Your task to perform on an android device: turn vacation reply on in the gmail app Image 0: 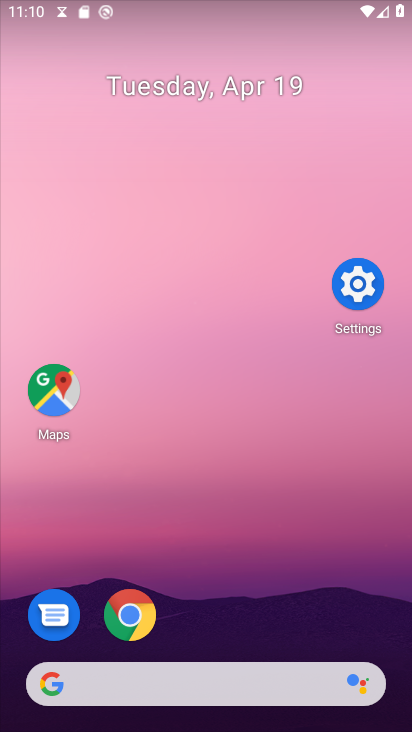
Step 0: drag from (171, 610) to (360, 10)
Your task to perform on an android device: turn vacation reply on in the gmail app Image 1: 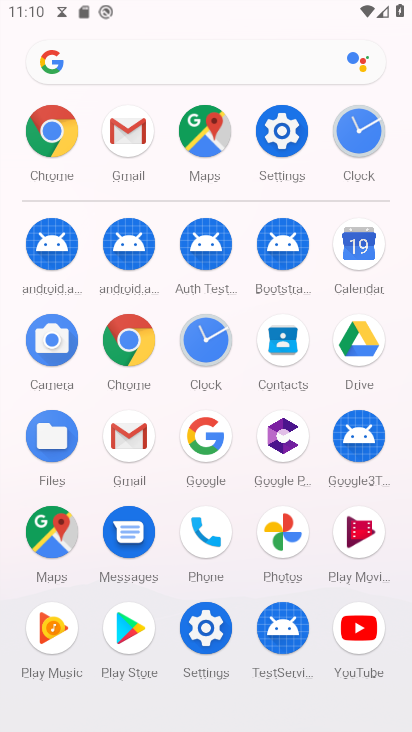
Step 1: click (126, 434)
Your task to perform on an android device: turn vacation reply on in the gmail app Image 2: 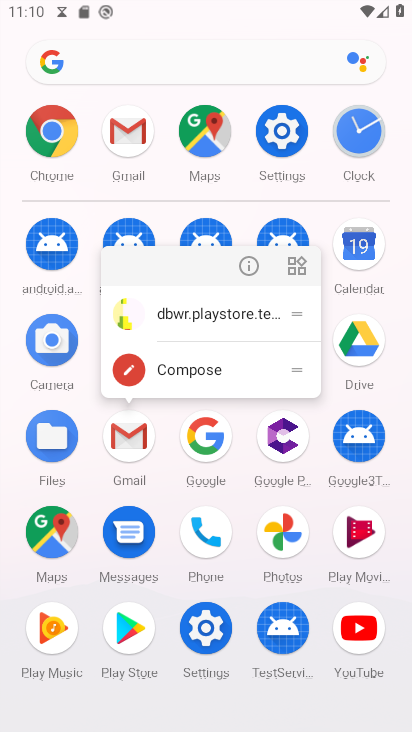
Step 2: click (243, 274)
Your task to perform on an android device: turn vacation reply on in the gmail app Image 3: 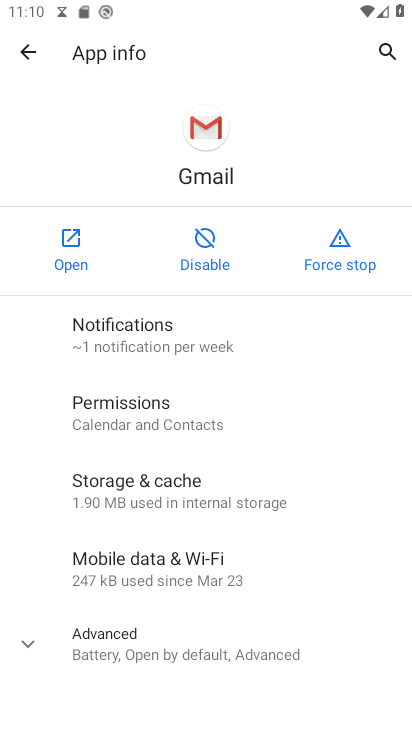
Step 3: click (70, 247)
Your task to perform on an android device: turn vacation reply on in the gmail app Image 4: 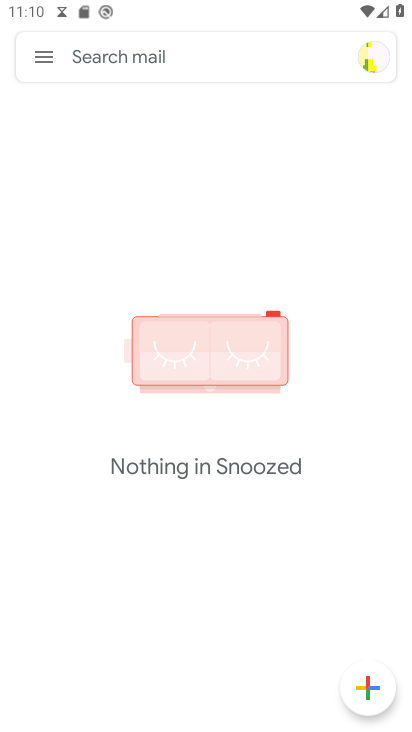
Step 4: drag from (250, 599) to (220, 314)
Your task to perform on an android device: turn vacation reply on in the gmail app Image 5: 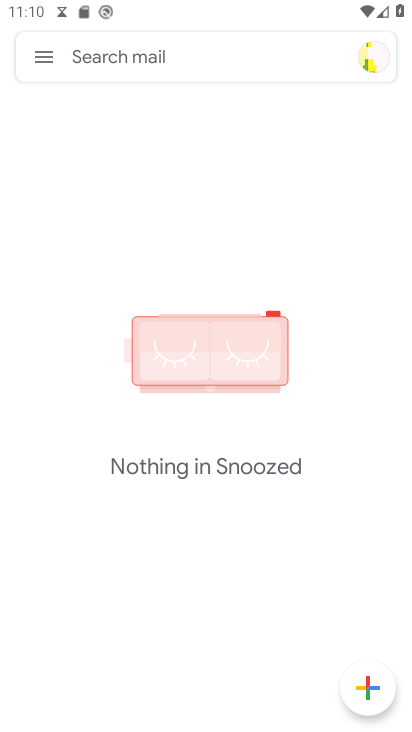
Step 5: drag from (281, 588) to (238, 345)
Your task to perform on an android device: turn vacation reply on in the gmail app Image 6: 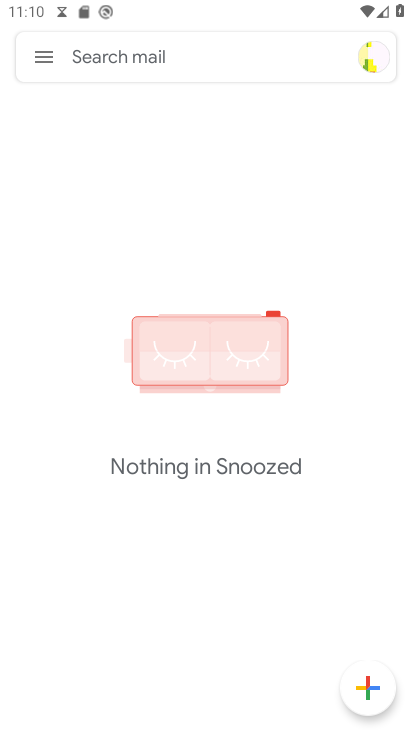
Step 6: click (44, 59)
Your task to perform on an android device: turn vacation reply on in the gmail app Image 7: 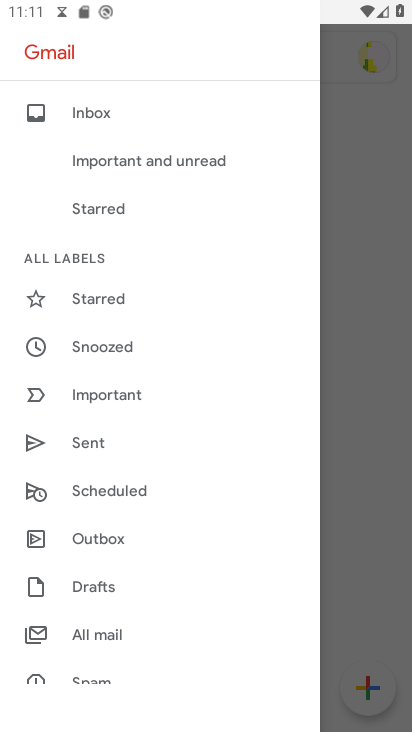
Step 7: drag from (126, 570) to (278, 30)
Your task to perform on an android device: turn vacation reply on in the gmail app Image 8: 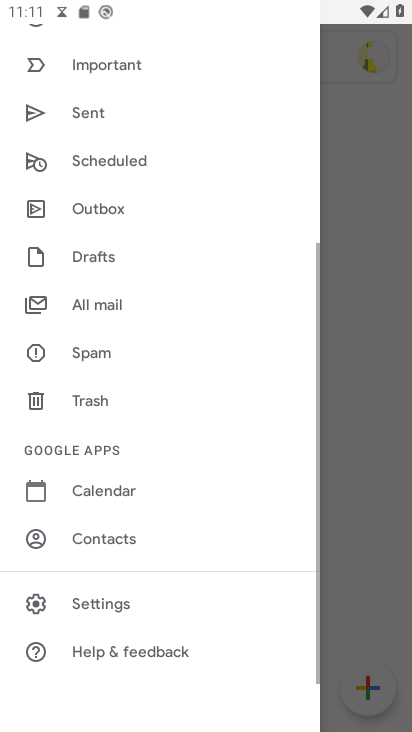
Step 8: click (113, 606)
Your task to perform on an android device: turn vacation reply on in the gmail app Image 9: 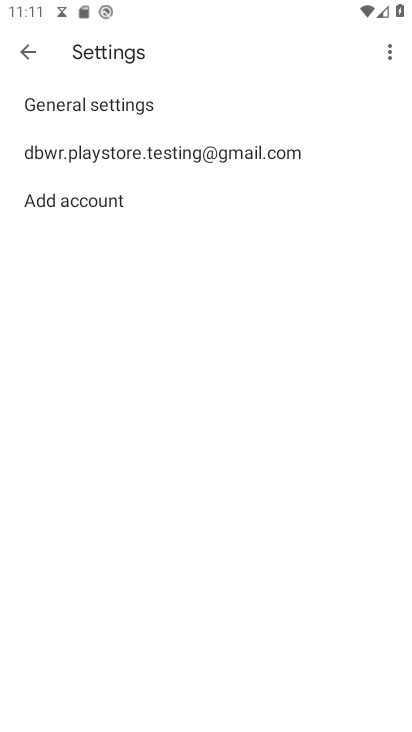
Step 9: click (149, 145)
Your task to perform on an android device: turn vacation reply on in the gmail app Image 10: 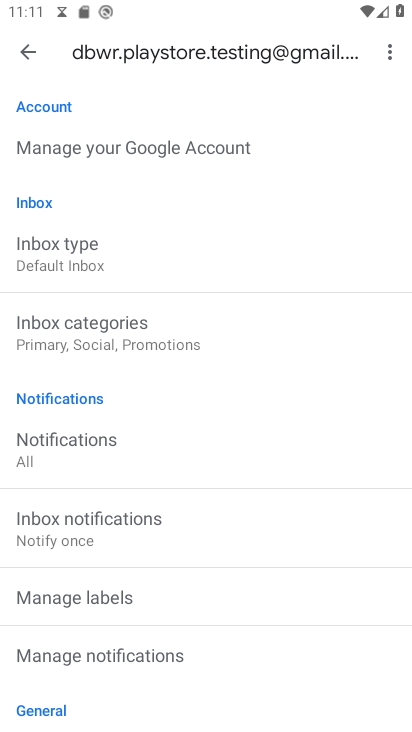
Step 10: drag from (177, 560) to (297, 191)
Your task to perform on an android device: turn vacation reply on in the gmail app Image 11: 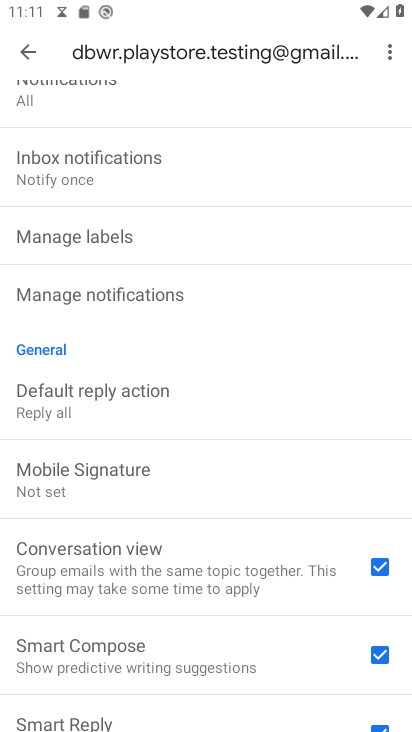
Step 11: drag from (195, 626) to (254, 136)
Your task to perform on an android device: turn vacation reply on in the gmail app Image 12: 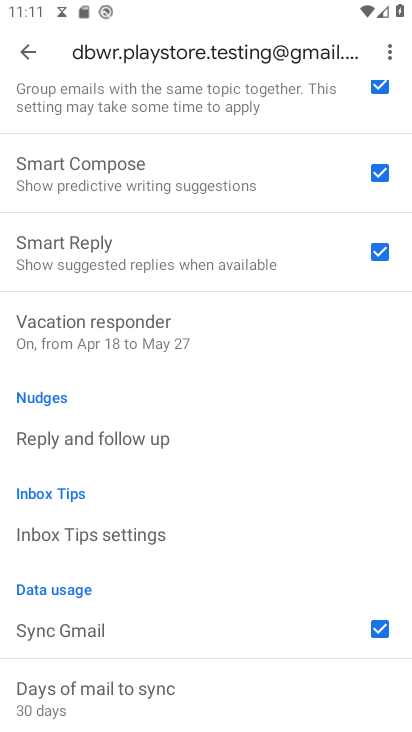
Step 12: drag from (144, 554) to (231, 159)
Your task to perform on an android device: turn vacation reply on in the gmail app Image 13: 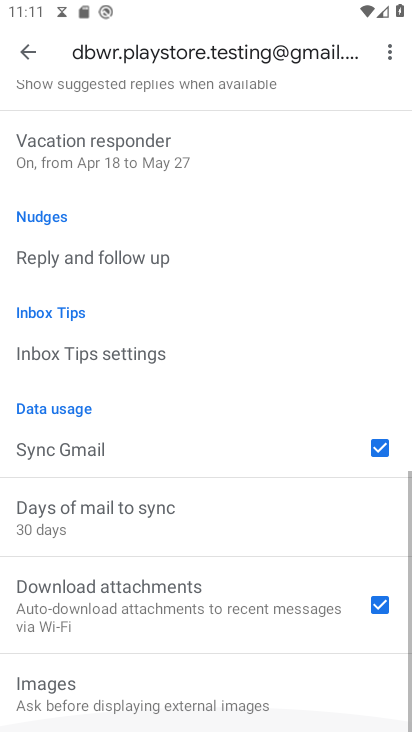
Step 13: drag from (228, 135) to (202, 352)
Your task to perform on an android device: turn vacation reply on in the gmail app Image 14: 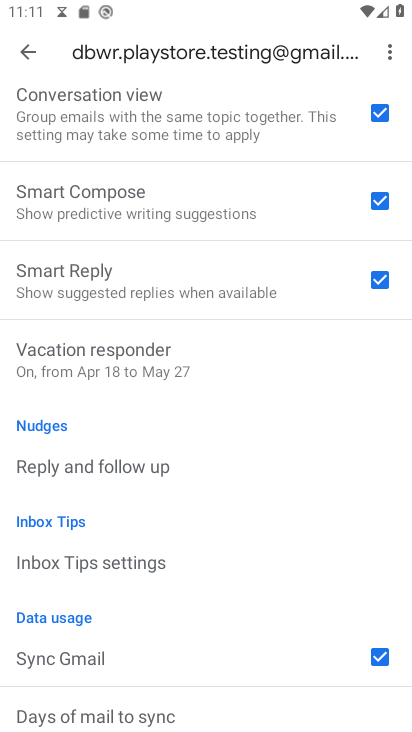
Step 14: click (138, 365)
Your task to perform on an android device: turn vacation reply on in the gmail app Image 15: 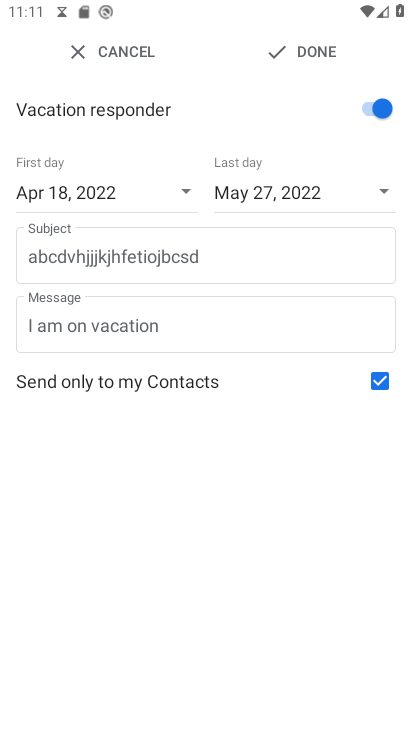
Step 15: click (291, 40)
Your task to perform on an android device: turn vacation reply on in the gmail app Image 16: 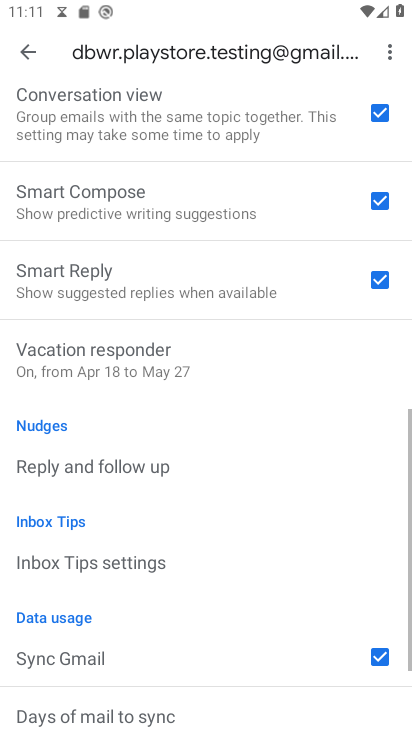
Step 16: task complete